Your task to perform on an android device: delete location history Image 0: 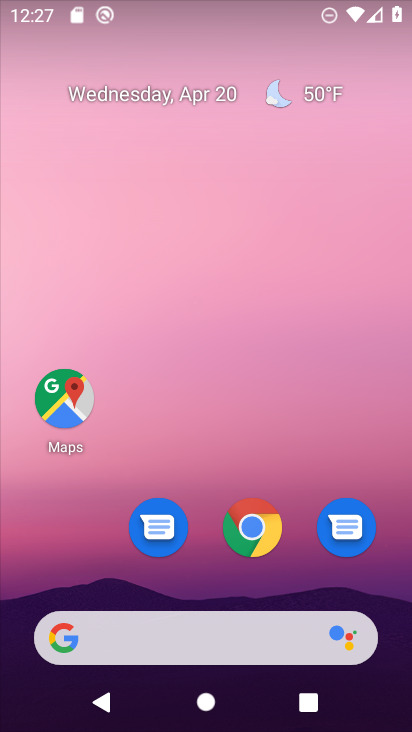
Step 0: drag from (399, 573) to (410, 486)
Your task to perform on an android device: delete location history Image 1: 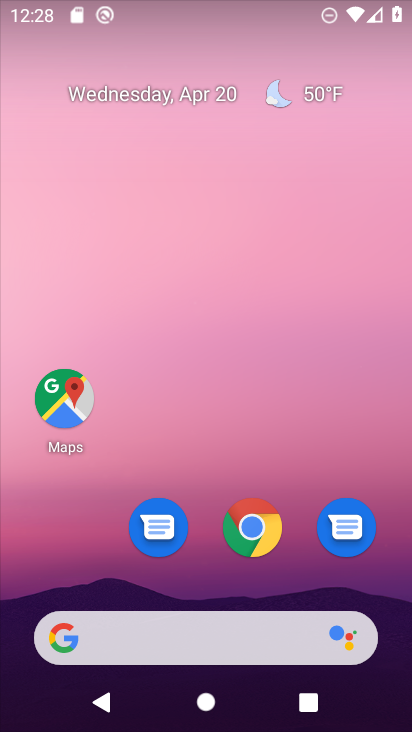
Step 1: click (52, 392)
Your task to perform on an android device: delete location history Image 2: 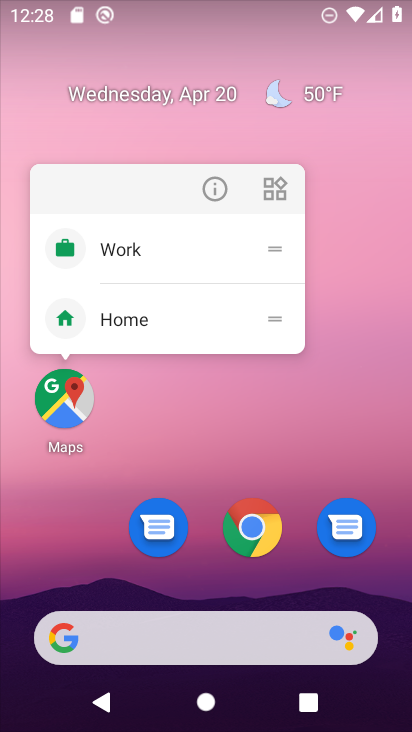
Step 2: click (57, 398)
Your task to perform on an android device: delete location history Image 3: 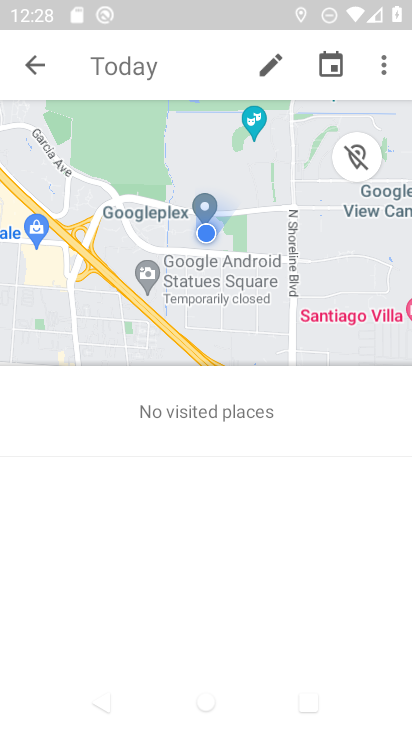
Step 3: click (384, 59)
Your task to perform on an android device: delete location history Image 4: 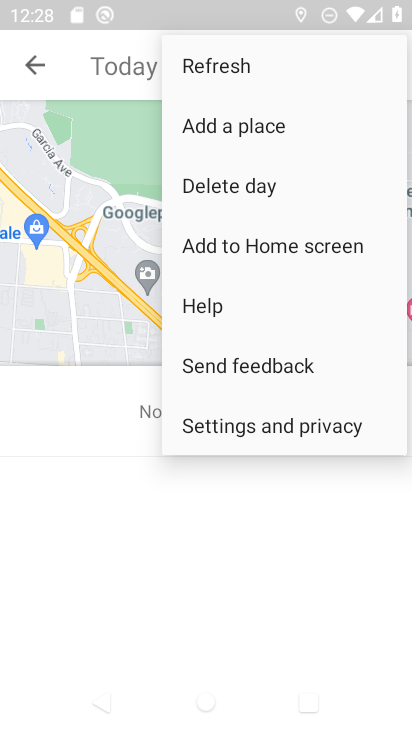
Step 4: click (283, 439)
Your task to perform on an android device: delete location history Image 5: 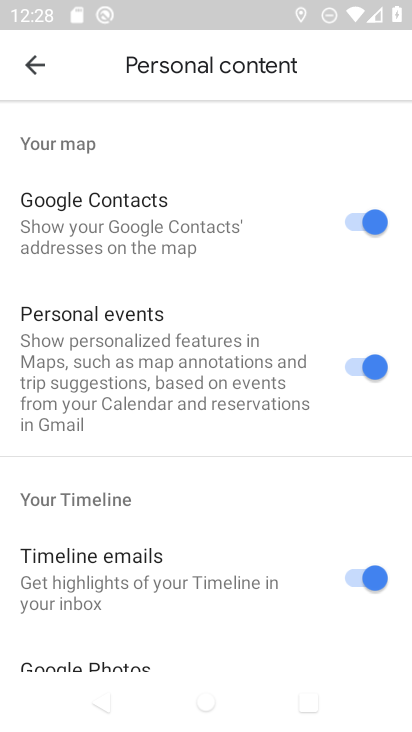
Step 5: drag from (187, 558) to (262, 22)
Your task to perform on an android device: delete location history Image 6: 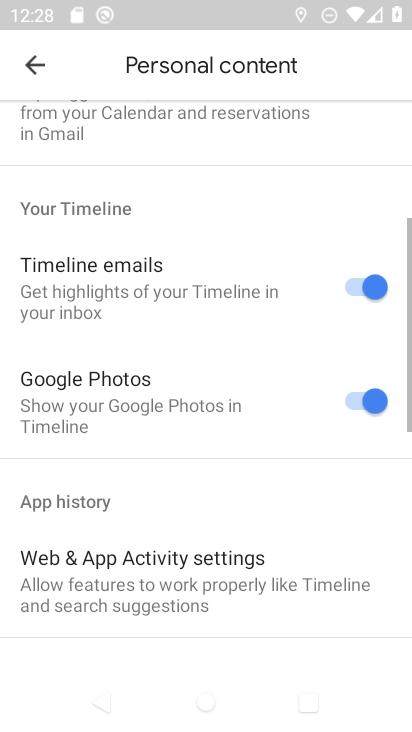
Step 6: drag from (177, 430) to (153, 16)
Your task to perform on an android device: delete location history Image 7: 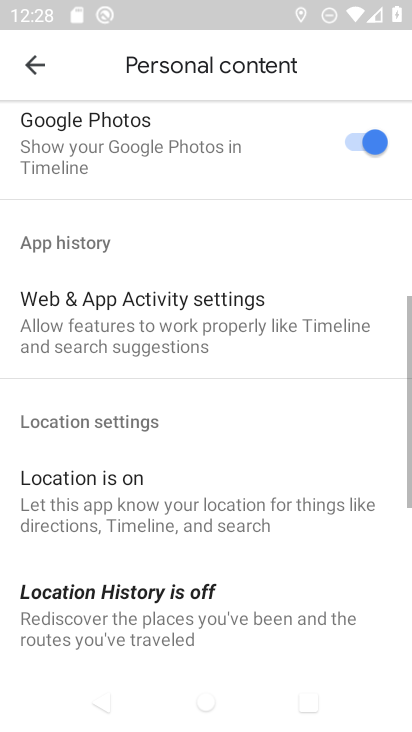
Step 7: drag from (210, 542) to (171, 29)
Your task to perform on an android device: delete location history Image 8: 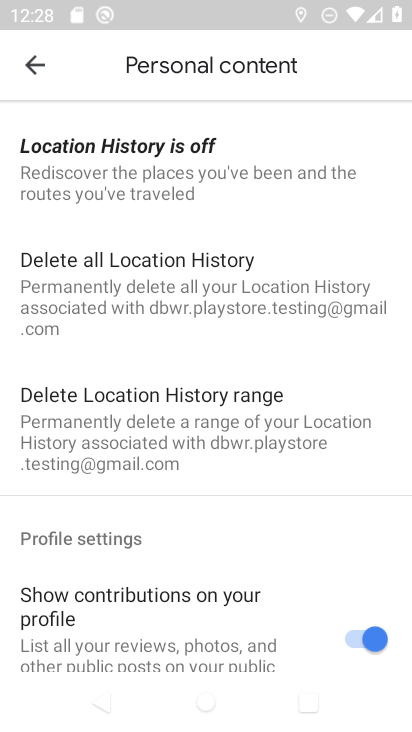
Step 8: click (117, 290)
Your task to perform on an android device: delete location history Image 9: 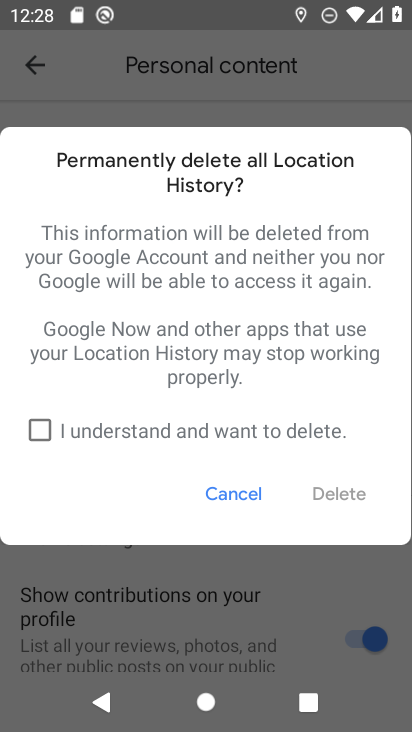
Step 9: click (45, 428)
Your task to perform on an android device: delete location history Image 10: 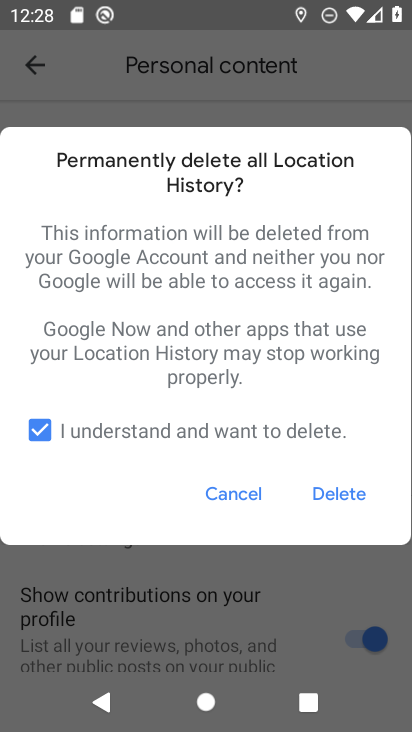
Step 10: click (336, 496)
Your task to perform on an android device: delete location history Image 11: 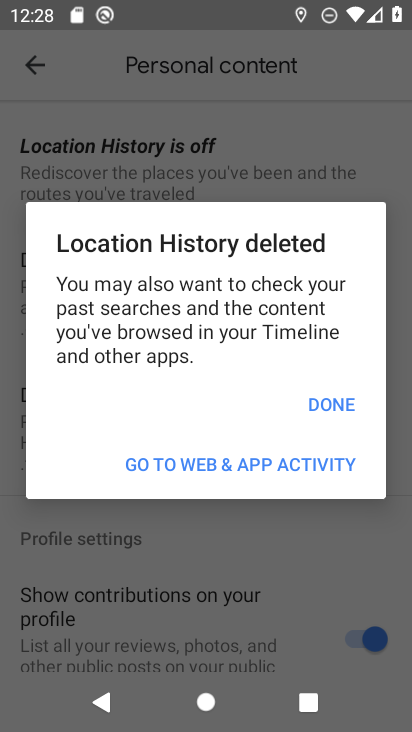
Step 11: click (316, 389)
Your task to perform on an android device: delete location history Image 12: 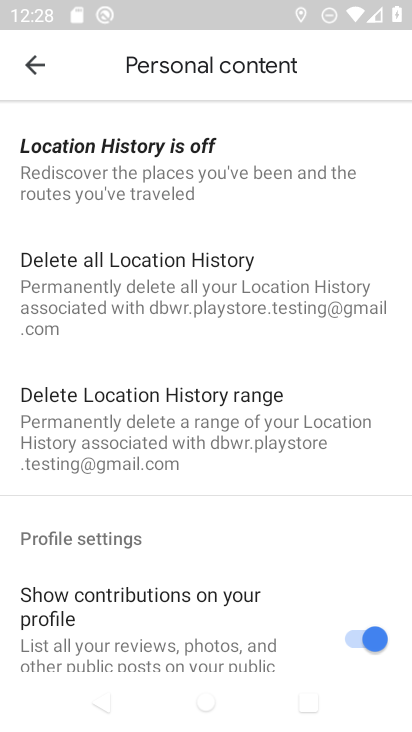
Step 12: task complete